Your task to perform on an android device: see creations saved in the google photos Image 0: 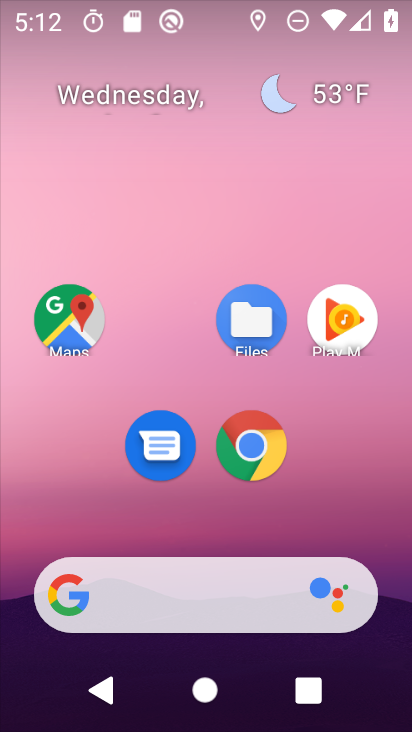
Step 0: drag from (304, 418) to (245, 55)
Your task to perform on an android device: see creations saved in the google photos Image 1: 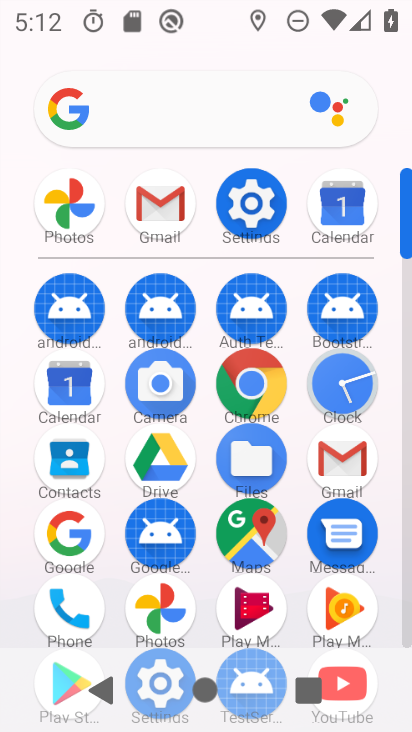
Step 1: click (93, 218)
Your task to perform on an android device: see creations saved in the google photos Image 2: 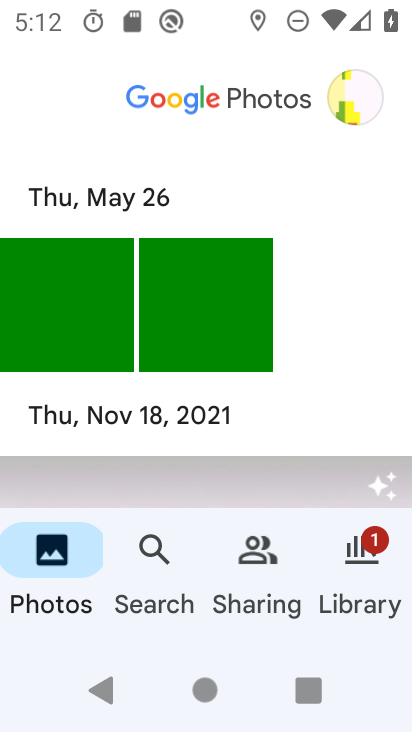
Step 2: drag from (362, 453) to (411, 184)
Your task to perform on an android device: see creations saved in the google photos Image 3: 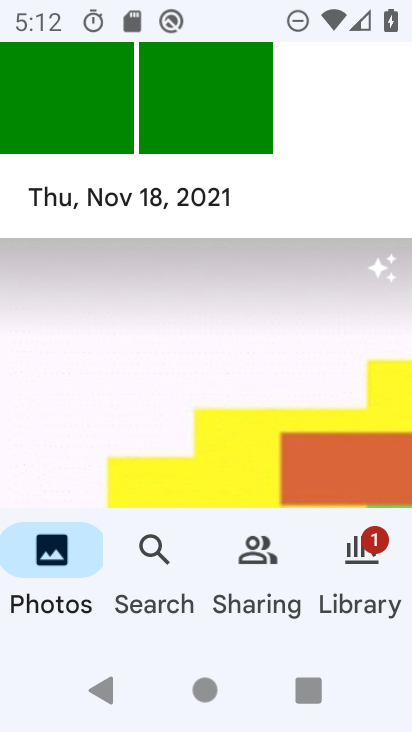
Step 3: drag from (379, 410) to (345, 217)
Your task to perform on an android device: see creations saved in the google photos Image 4: 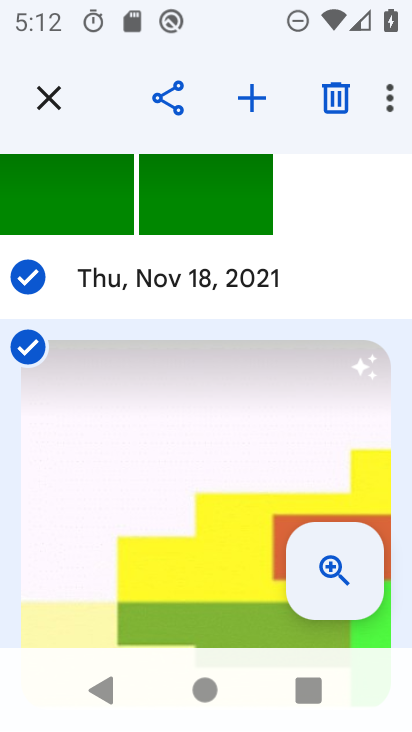
Step 4: click (37, 110)
Your task to perform on an android device: see creations saved in the google photos Image 5: 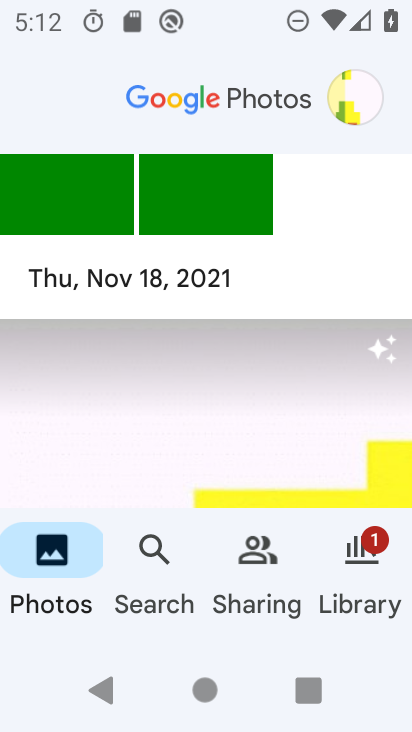
Step 5: drag from (86, 459) to (130, 75)
Your task to perform on an android device: see creations saved in the google photos Image 6: 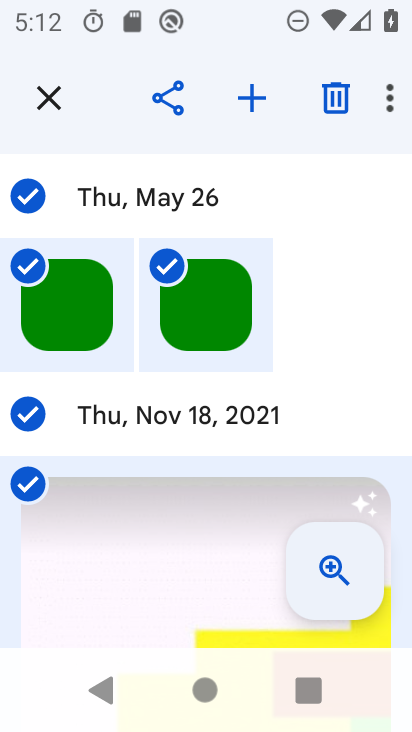
Step 6: click (65, 105)
Your task to perform on an android device: see creations saved in the google photos Image 7: 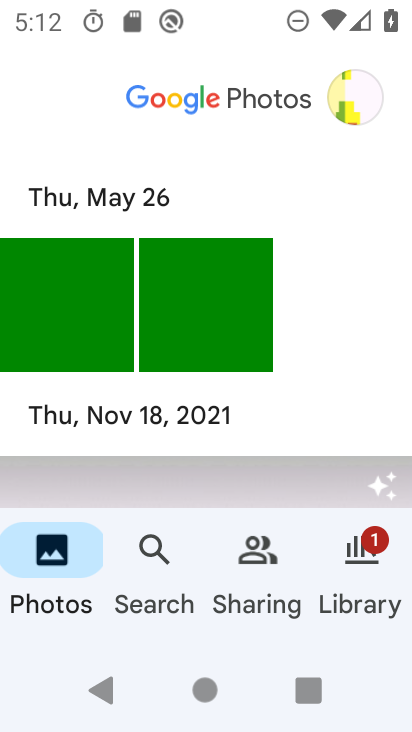
Step 7: task complete